Your task to perform on an android device: Check the weather Image 0: 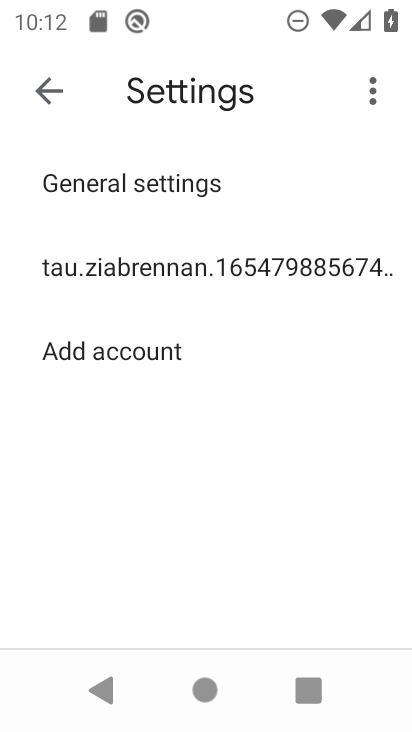
Step 0: press home button
Your task to perform on an android device: Check the weather Image 1: 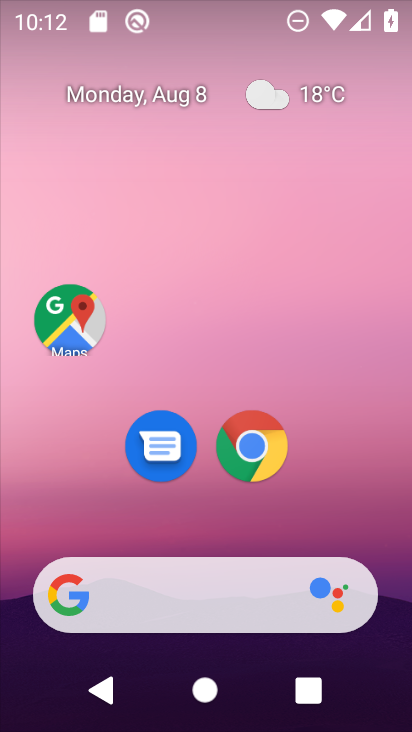
Step 1: click (321, 95)
Your task to perform on an android device: Check the weather Image 2: 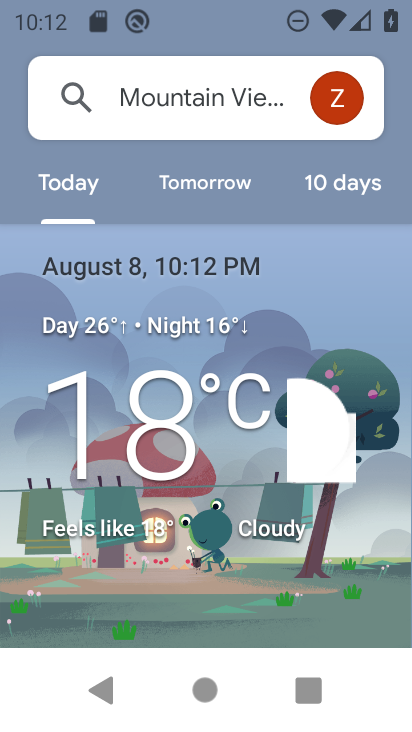
Step 2: task complete